Your task to perform on an android device: Go to battery settings Image 0: 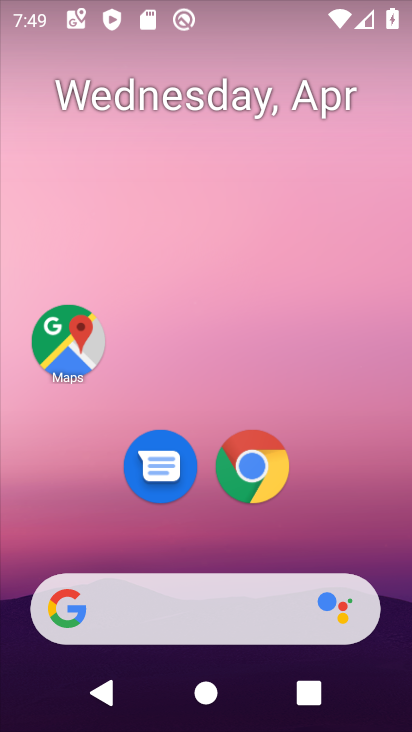
Step 0: drag from (305, 551) to (255, 146)
Your task to perform on an android device: Go to battery settings Image 1: 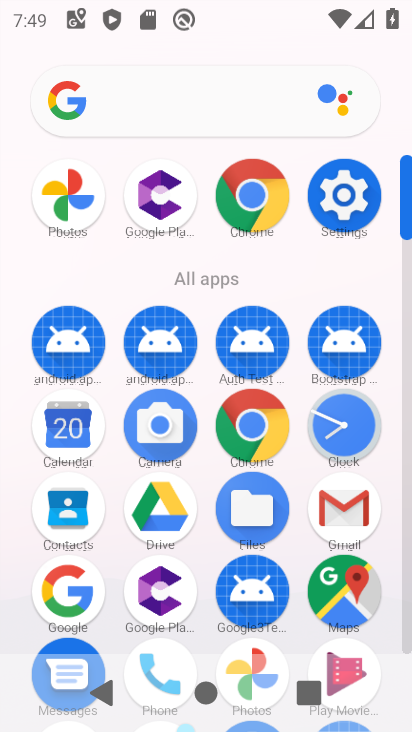
Step 1: click (347, 192)
Your task to perform on an android device: Go to battery settings Image 2: 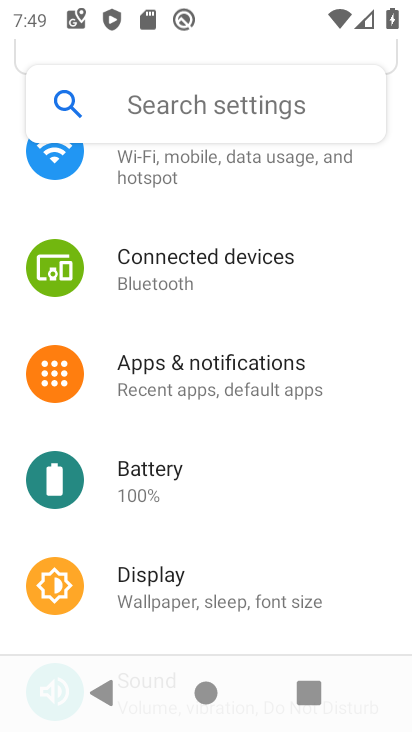
Step 2: click (133, 492)
Your task to perform on an android device: Go to battery settings Image 3: 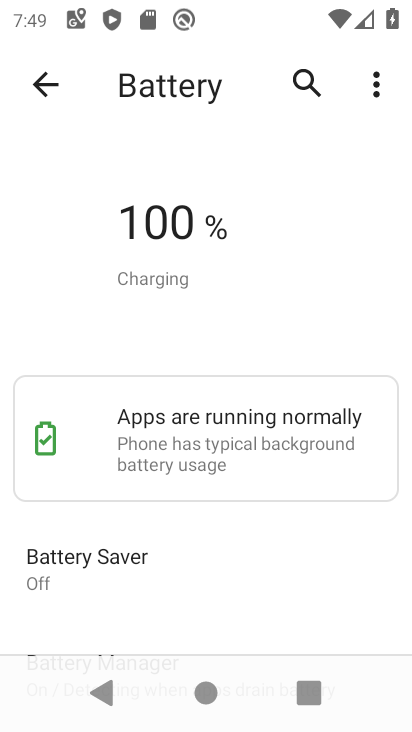
Step 3: task complete